Your task to perform on an android device: Is it going to rain tomorrow? Image 0: 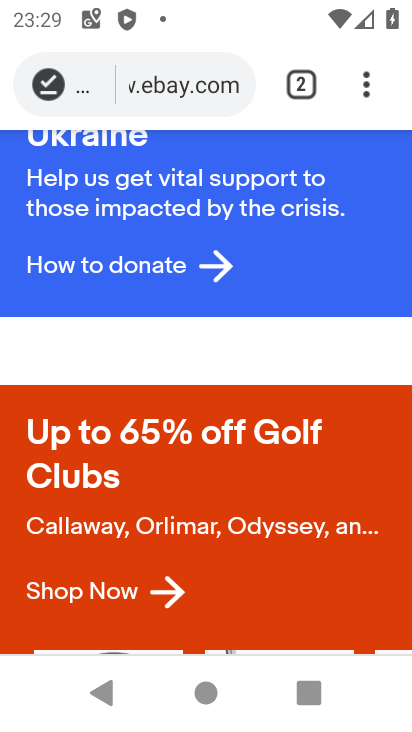
Step 0: press home button
Your task to perform on an android device: Is it going to rain tomorrow? Image 1: 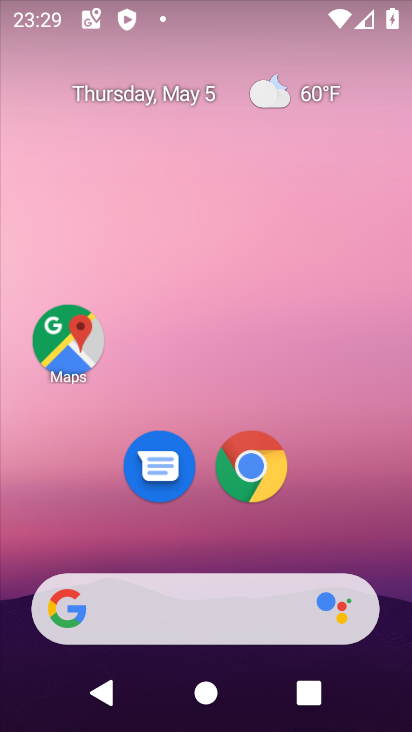
Step 1: drag from (199, 560) to (281, 308)
Your task to perform on an android device: Is it going to rain tomorrow? Image 2: 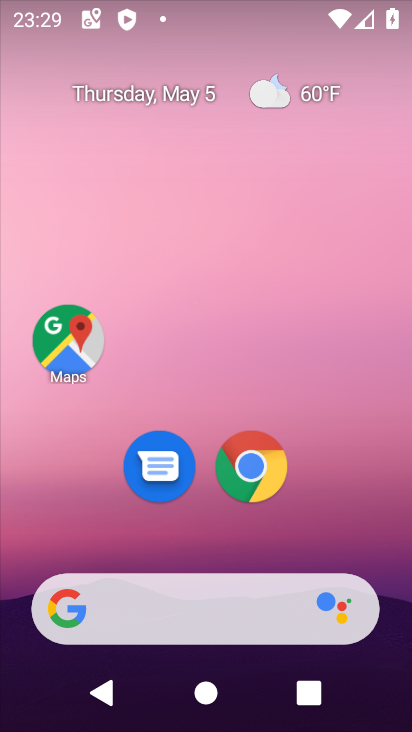
Step 2: drag from (209, 554) to (232, 136)
Your task to perform on an android device: Is it going to rain tomorrow? Image 3: 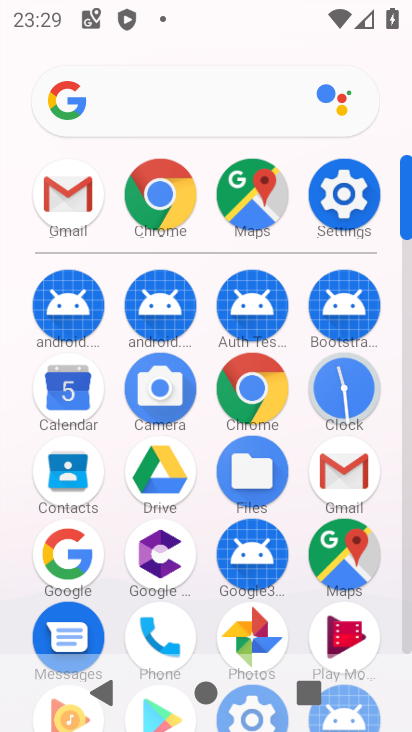
Step 3: click (62, 552)
Your task to perform on an android device: Is it going to rain tomorrow? Image 4: 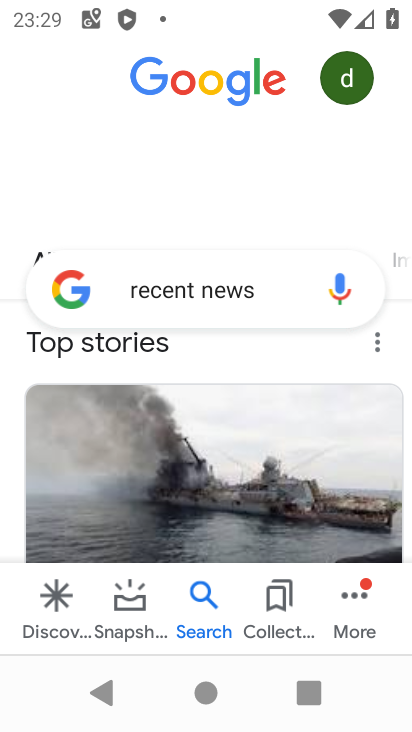
Step 4: click (258, 292)
Your task to perform on an android device: Is it going to rain tomorrow? Image 5: 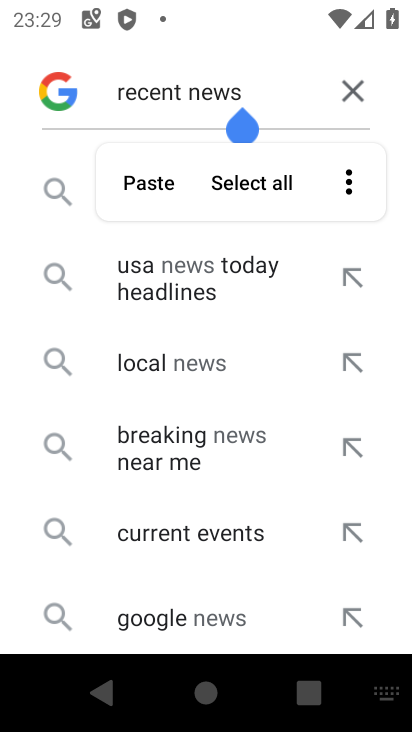
Step 5: click (360, 88)
Your task to perform on an android device: Is it going to rain tomorrow? Image 6: 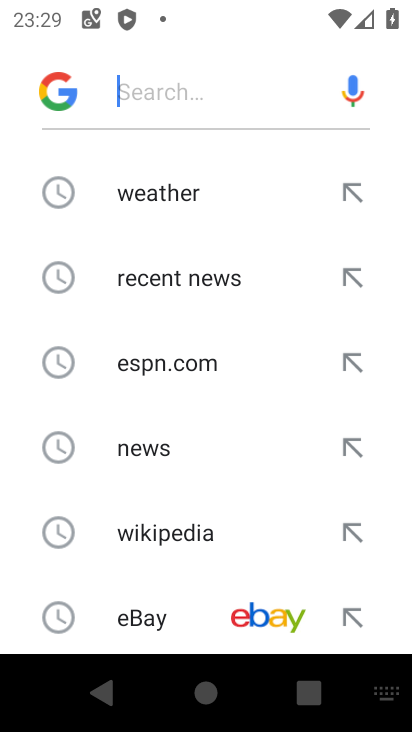
Step 6: click (173, 101)
Your task to perform on an android device: Is it going to rain tomorrow? Image 7: 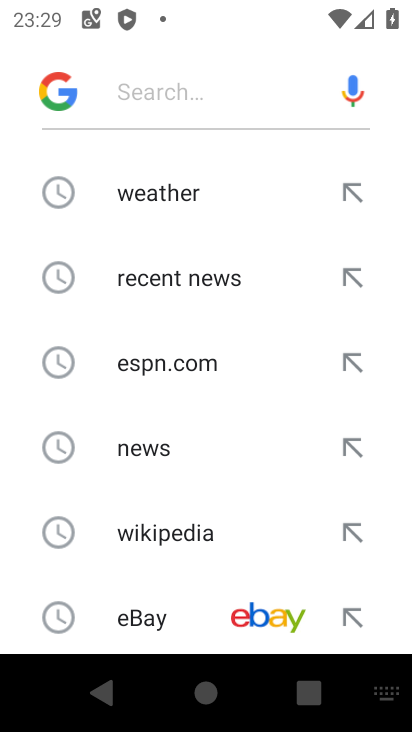
Step 7: drag from (177, 520) to (231, 218)
Your task to perform on an android device: Is it going to rain tomorrow? Image 8: 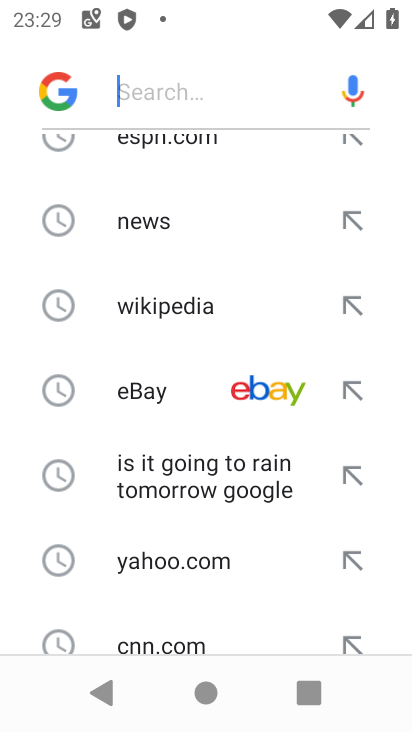
Step 8: click (143, 478)
Your task to perform on an android device: Is it going to rain tomorrow? Image 9: 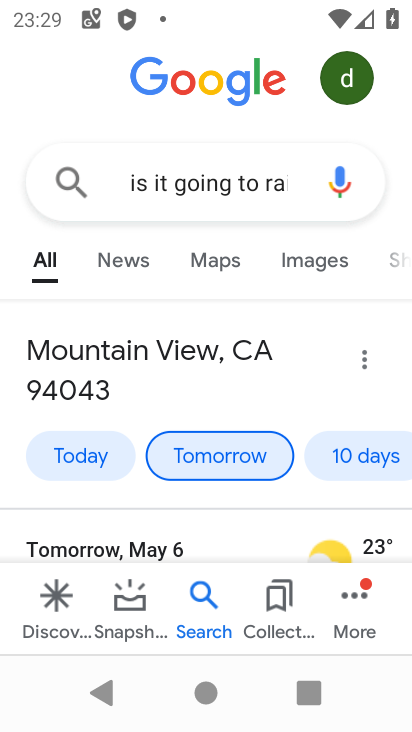
Step 9: task complete